Your task to perform on an android device: Go to battery settings Image 0: 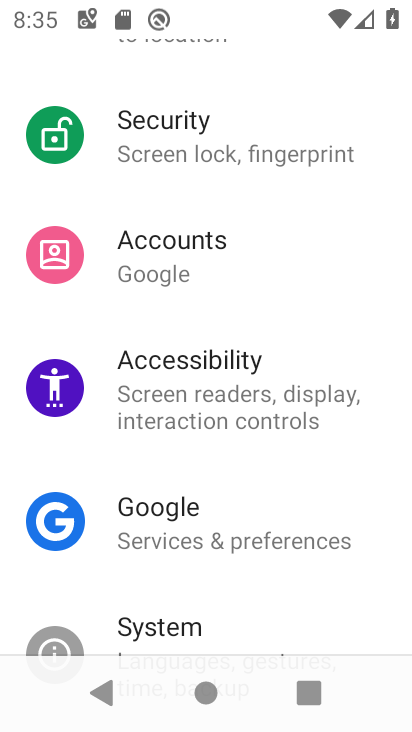
Step 0: press home button
Your task to perform on an android device: Go to battery settings Image 1: 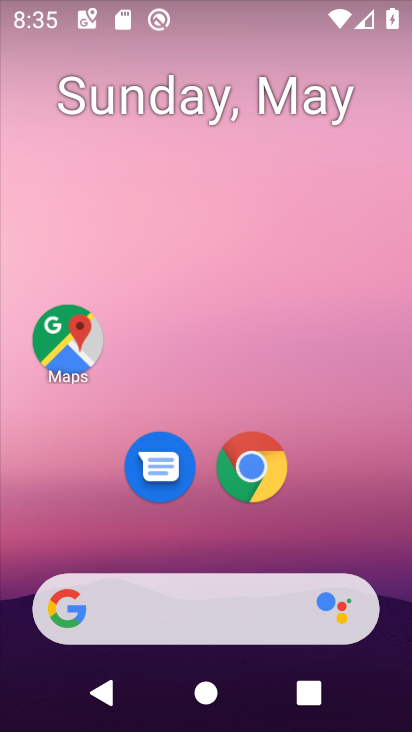
Step 1: drag from (354, 535) to (336, 191)
Your task to perform on an android device: Go to battery settings Image 2: 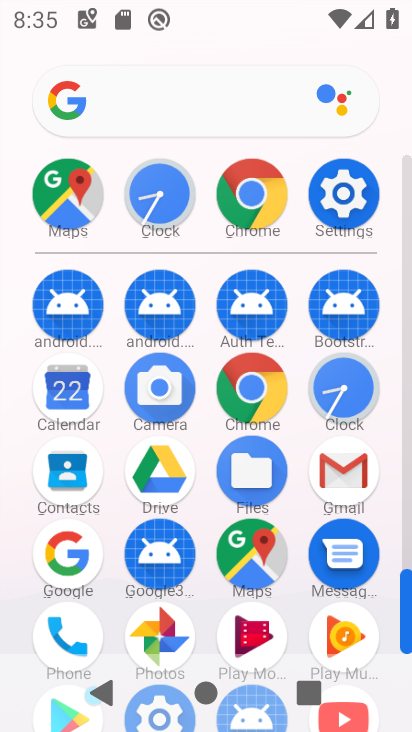
Step 2: click (340, 200)
Your task to perform on an android device: Go to battery settings Image 3: 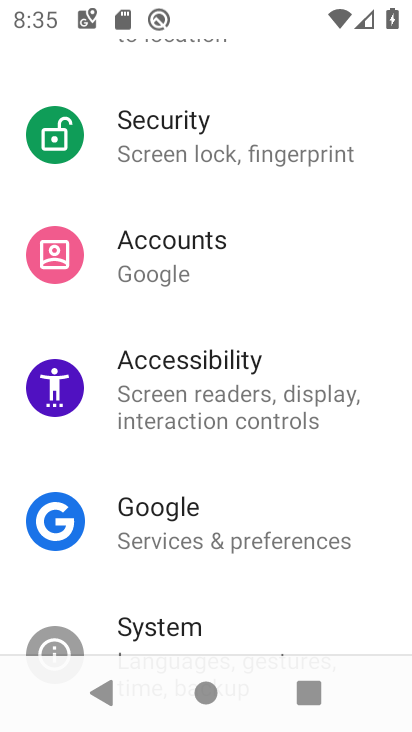
Step 3: drag from (248, 161) to (257, 486)
Your task to perform on an android device: Go to battery settings Image 4: 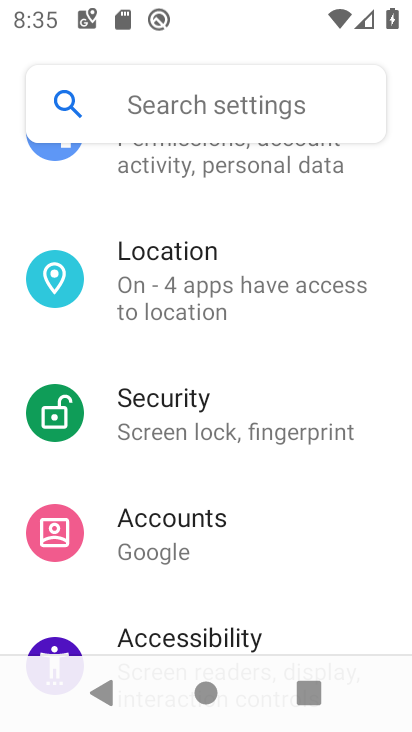
Step 4: drag from (255, 261) to (253, 512)
Your task to perform on an android device: Go to battery settings Image 5: 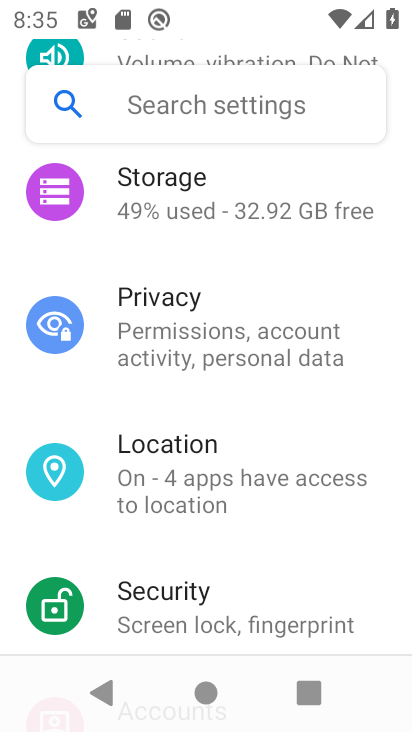
Step 5: drag from (226, 222) to (243, 586)
Your task to perform on an android device: Go to battery settings Image 6: 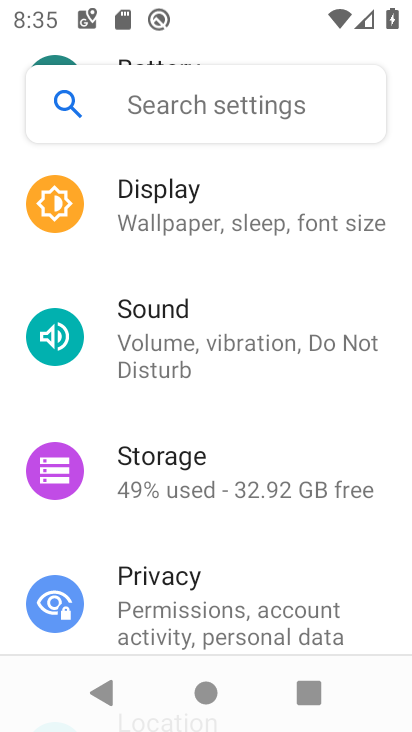
Step 6: drag from (233, 252) to (272, 603)
Your task to perform on an android device: Go to battery settings Image 7: 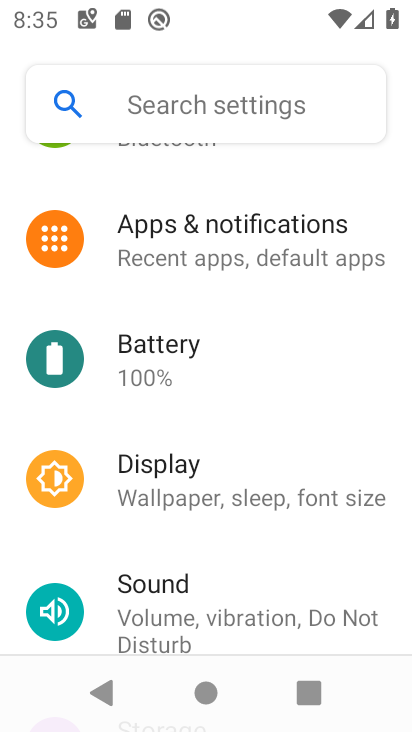
Step 7: click (153, 352)
Your task to perform on an android device: Go to battery settings Image 8: 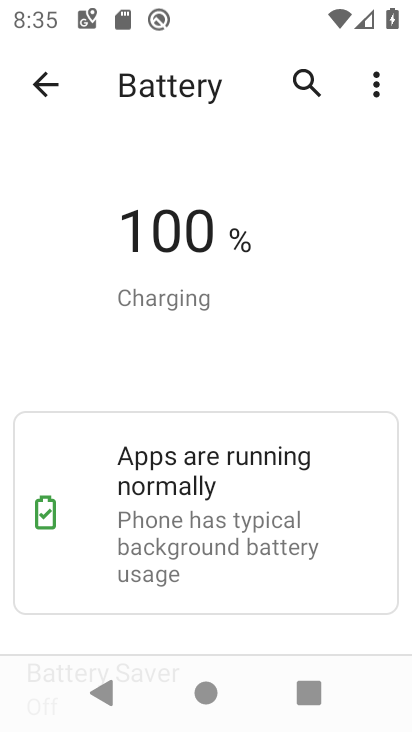
Step 8: click (380, 88)
Your task to perform on an android device: Go to battery settings Image 9: 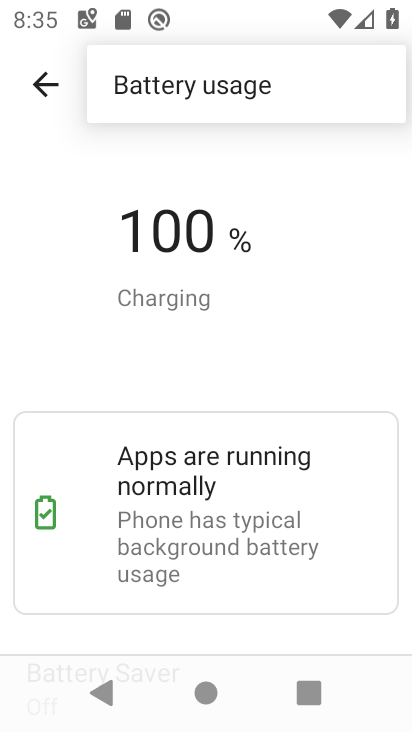
Step 9: task complete